Your task to perform on an android device: Open Yahoo.com Image 0: 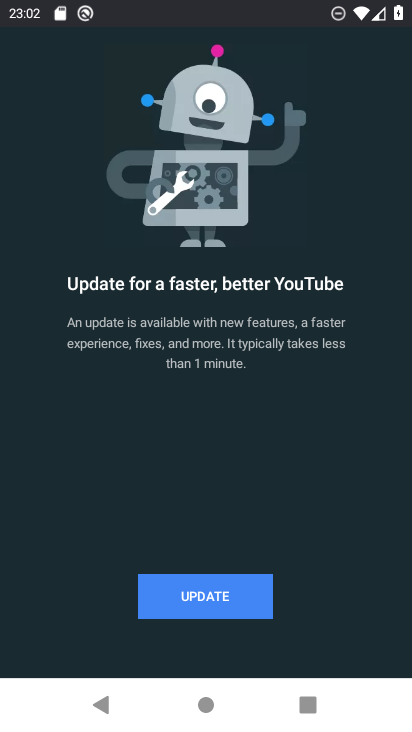
Step 0: press home button
Your task to perform on an android device: Open Yahoo.com Image 1: 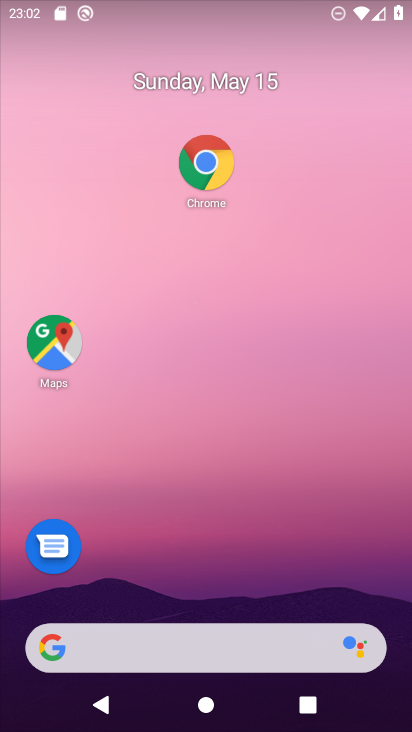
Step 1: click (202, 148)
Your task to perform on an android device: Open Yahoo.com Image 2: 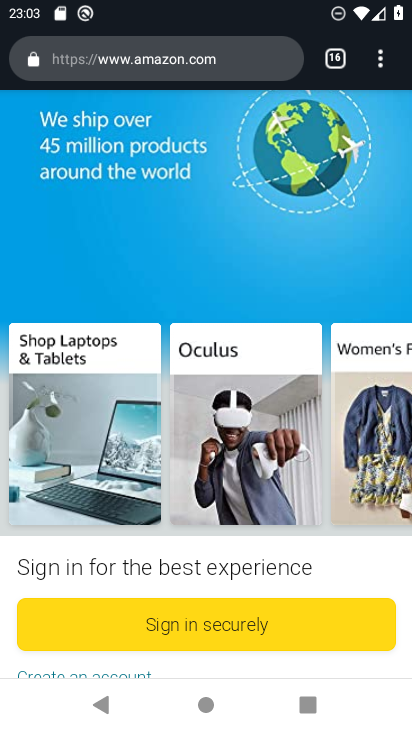
Step 2: click (342, 61)
Your task to perform on an android device: Open Yahoo.com Image 3: 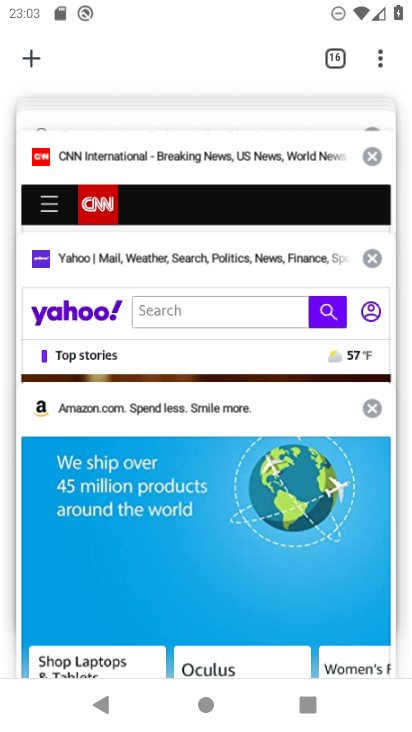
Step 3: click (85, 315)
Your task to perform on an android device: Open Yahoo.com Image 4: 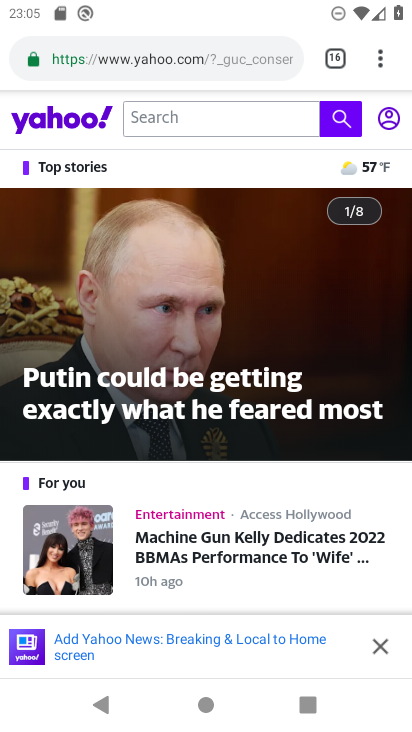
Step 4: task complete